Your task to perform on an android device: set default search engine in the chrome app Image 0: 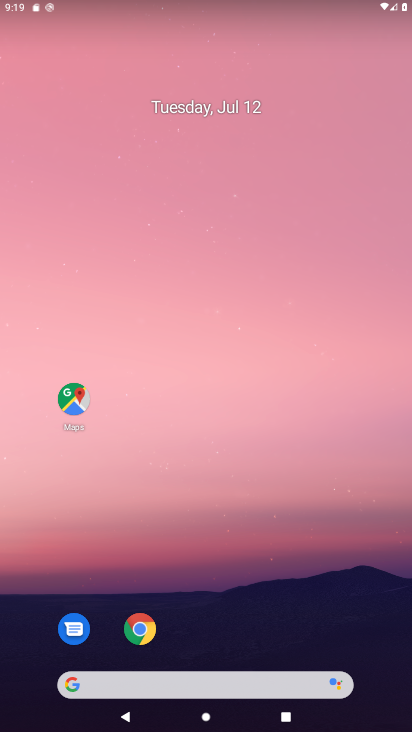
Step 0: drag from (316, 605) to (232, 28)
Your task to perform on an android device: set default search engine in the chrome app Image 1: 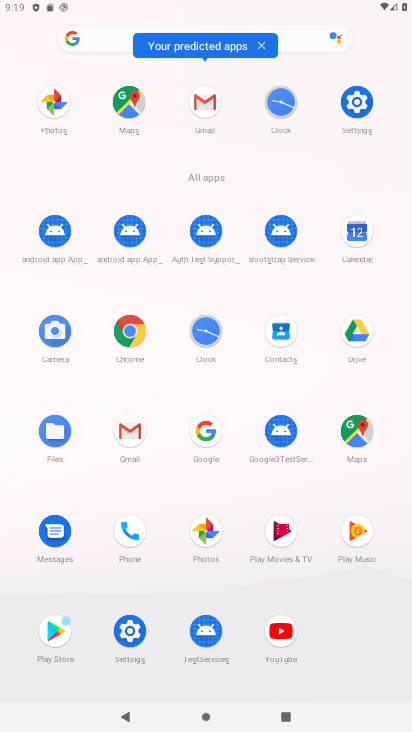
Step 1: click (127, 329)
Your task to perform on an android device: set default search engine in the chrome app Image 2: 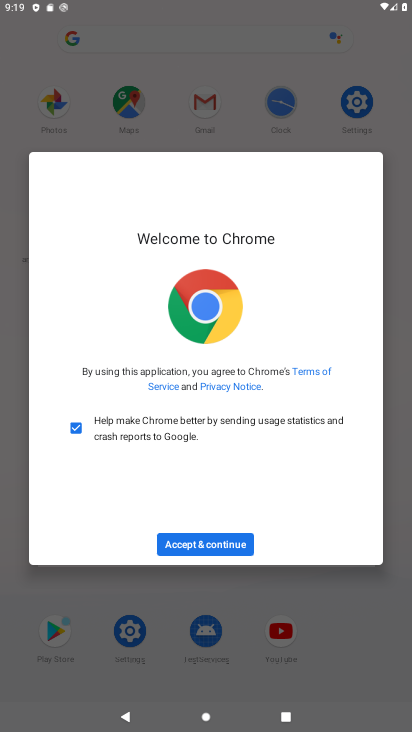
Step 2: click (237, 545)
Your task to perform on an android device: set default search engine in the chrome app Image 3: 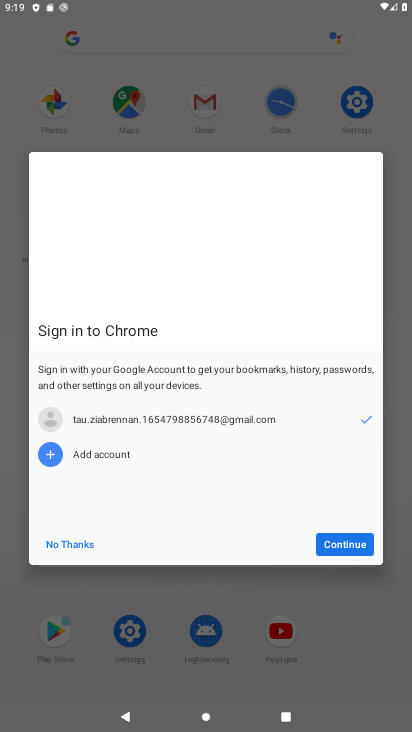
Step 3: click (339, 542)
Your task to perform on an android device: set default search engine in the chrome app Image 4: 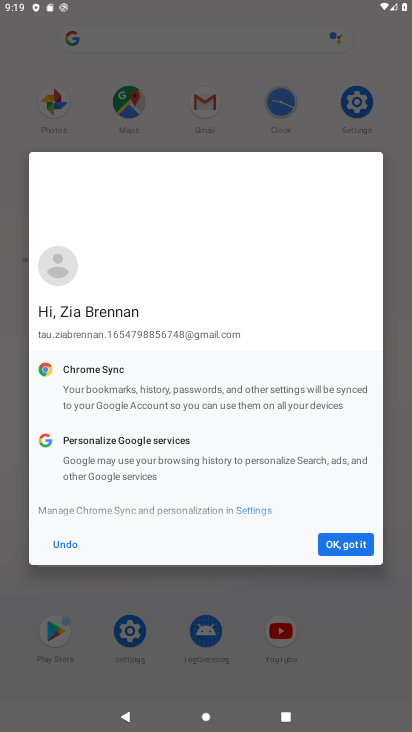
Step 4: click (348, 547)
Your task to perform on an android device: set default search engine in the chrome app Image 5: 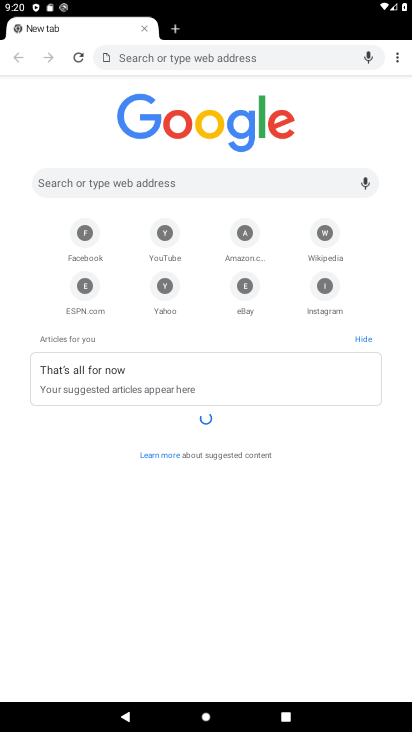
Step 5: drag from (395, 57) to (283, 265)
Your task to perform on an android device: set default search engine in the chrome app Image 6: 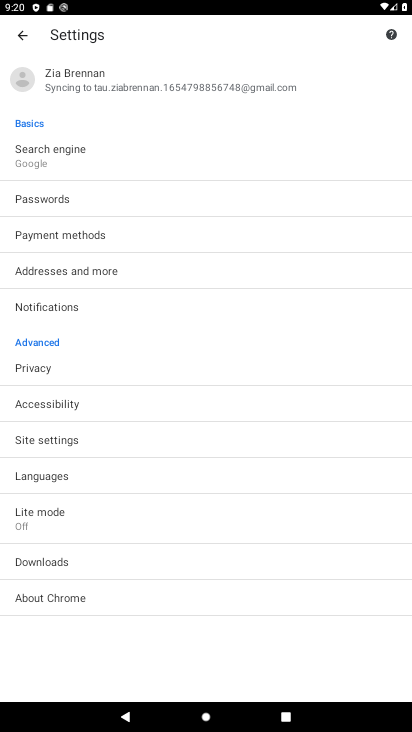
Step 6: click (28, 170)
Your task to perform on an android device: set default search engine in the chrome app Image 7: 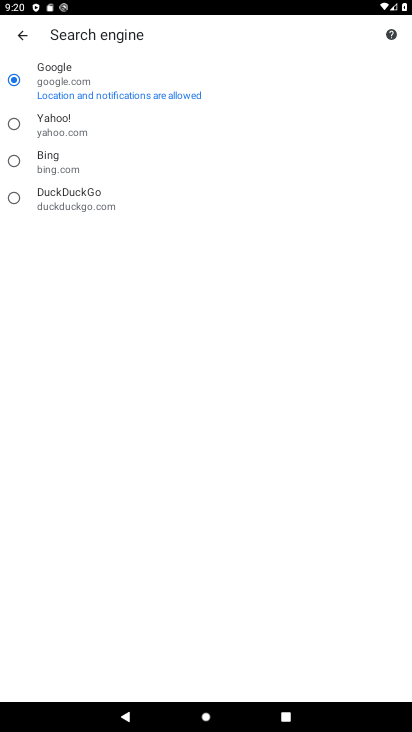
Step 7: task complete